Your task to perform on an android device: Go to network settings Image 0: 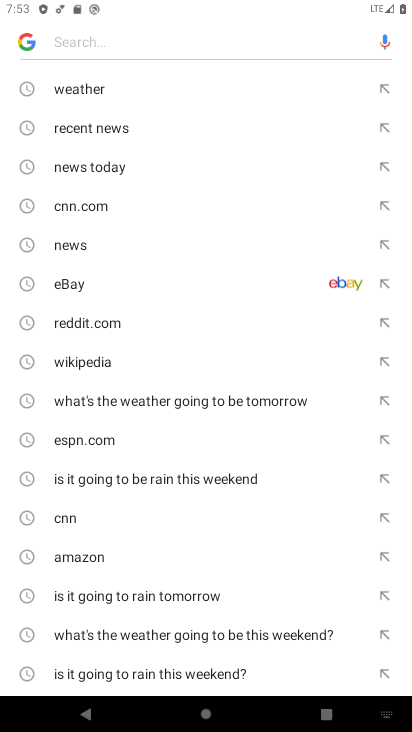
Step 0: press home button
Your task to perform on an android device: Go to network settings Image 1: 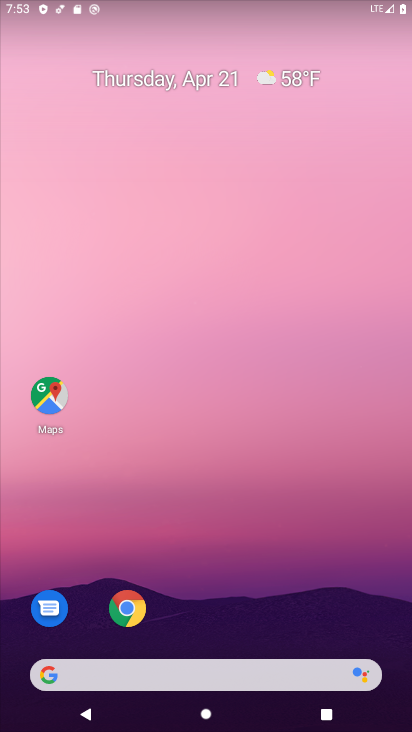
Step 1: drag from (233, 625) to (267, 153)
Your task to perform on an android device: Go to network settings Image 2: 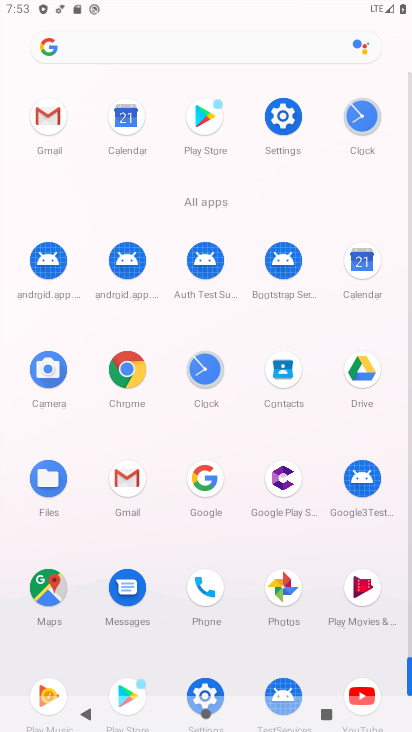
Step 2: click (293, 107)
Your task to perform on an android device: Go to network settings Image 3: 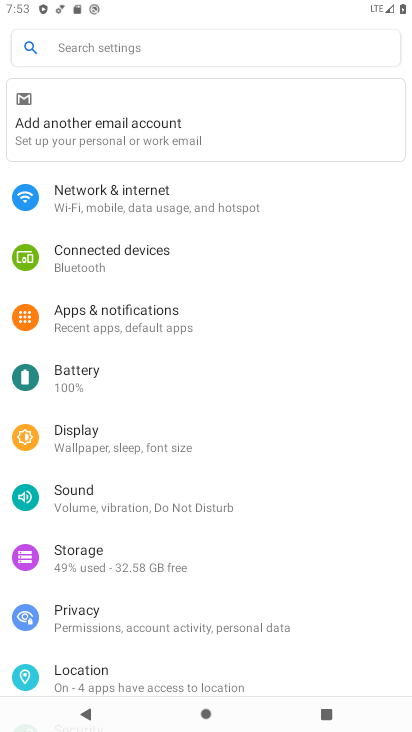
Step 3: click (232, 204)
Your task to perform on an android device: Go to network settings Image 4: 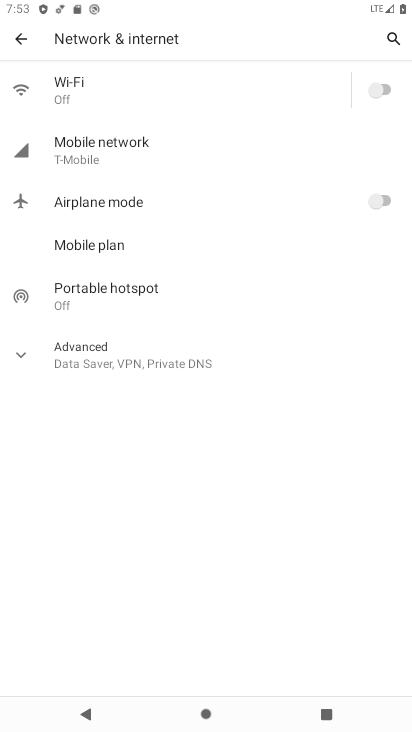
Step 4: task complete